Your task to perform on an android device: What's on Reddit today Image 0: 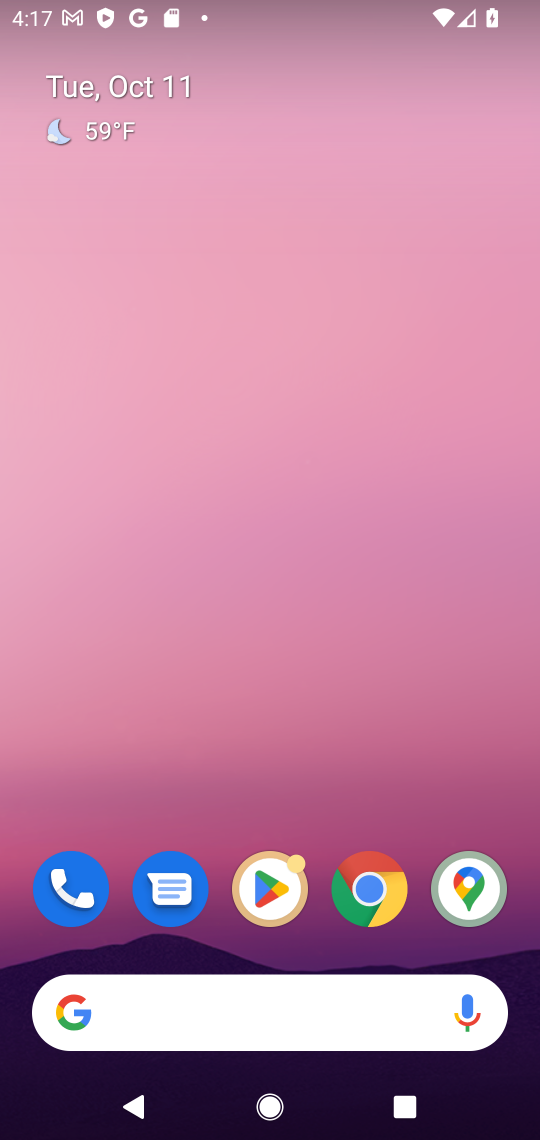
Step 0: drag from (281, 320) to (261, 48)
Your task to perform on an android device: What's on Reddit today Image 1: 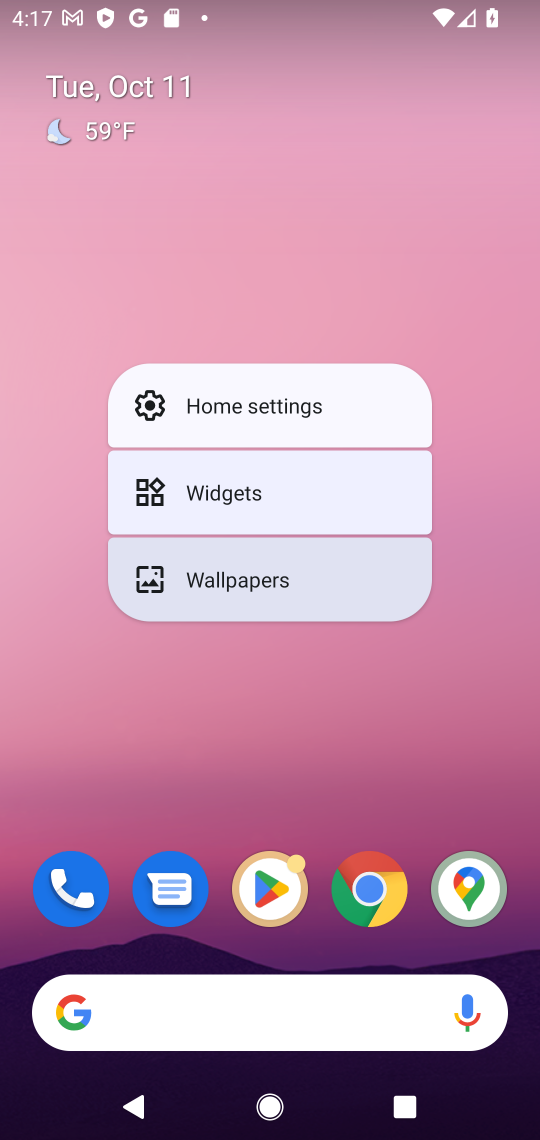
Step 1: click (209, 764)
Your task to perform on an android device: What's on Reddit today Image 2: 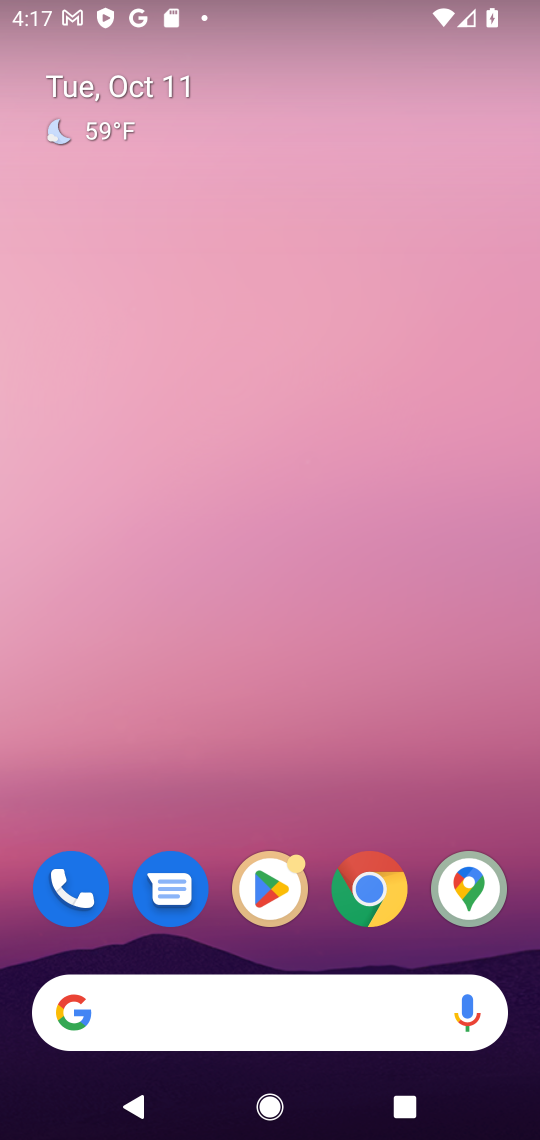
Step 2: drag from (235, 939) to (303, 212)
Your task to perform on an android device: What's on Reddit today Image 3: 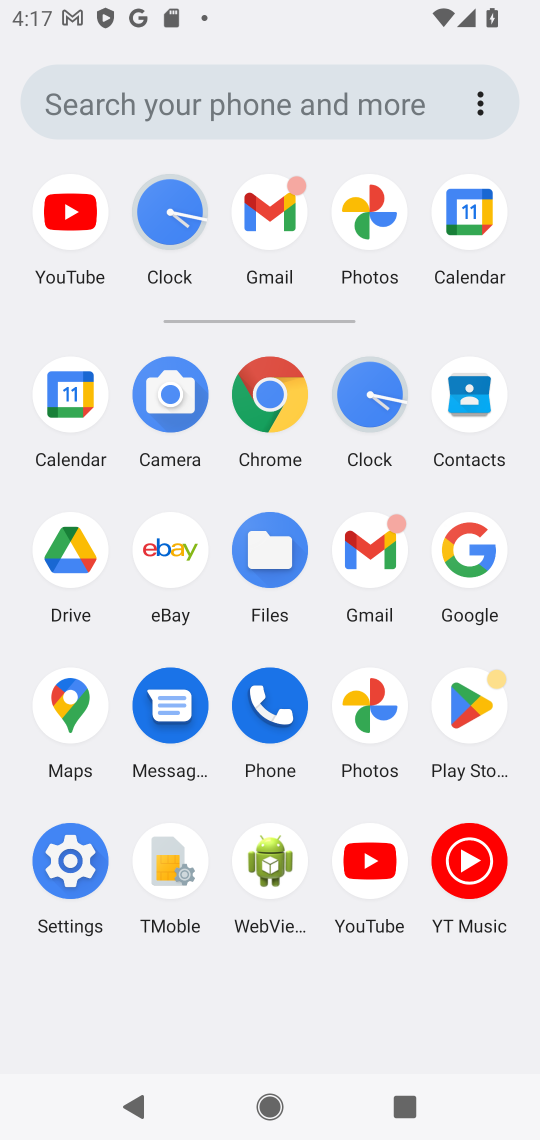
Step 3: click (485, 545)
Your task to perform on an android device: What's on Reddit today Image 4: 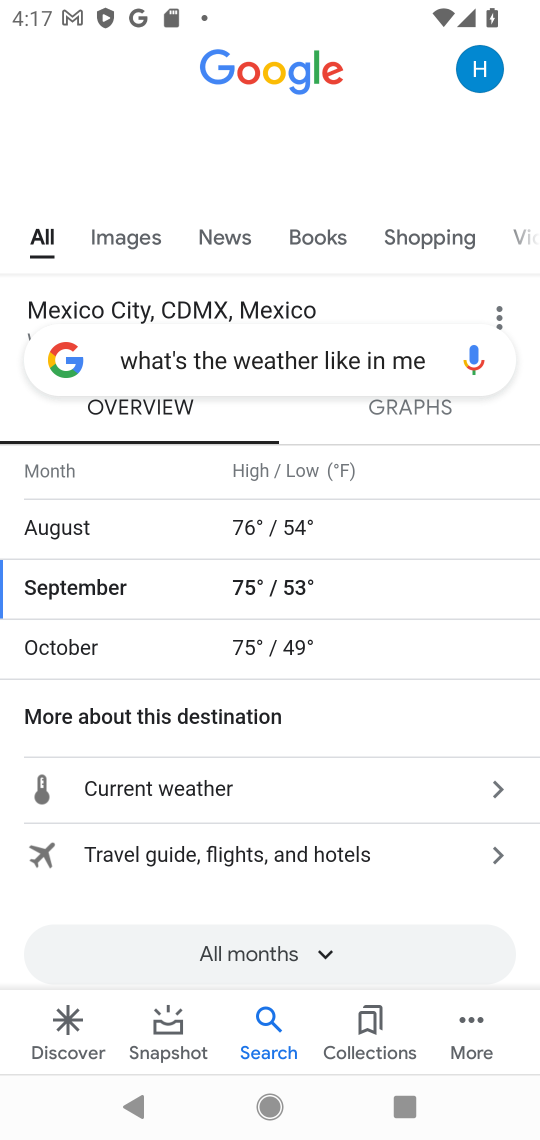
Step 4: click (214, 355)
Your task to perform on an android device: What's on Reddit today Image 5: 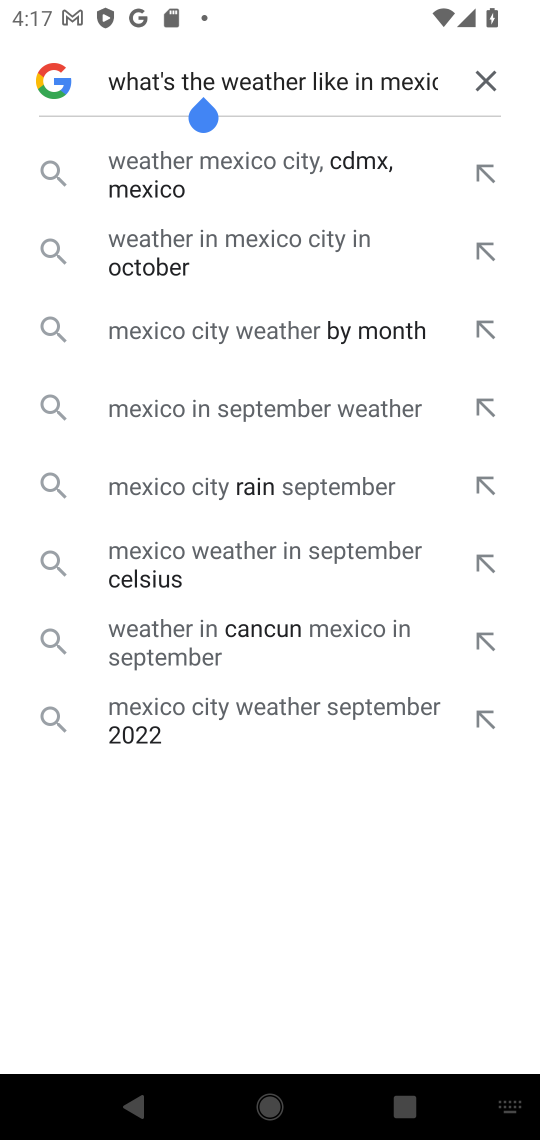
Step 5: click (495, 68)
Your task to perform on an android device: What's on Reddit today Image 6: 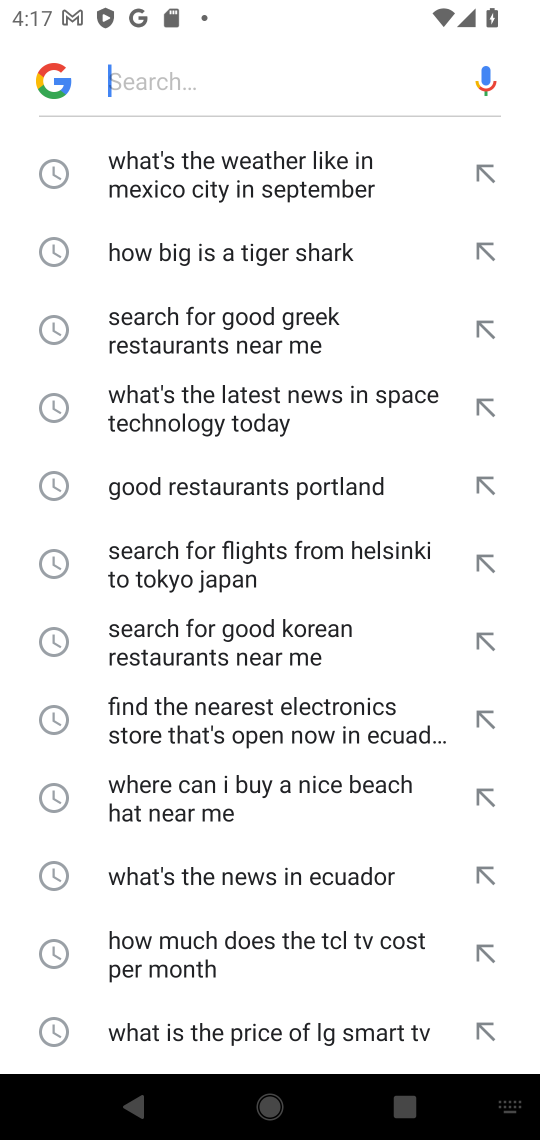
Step 6: click (246, 60)
Your task to perform on an android device: What's on Reddit today Image 7: 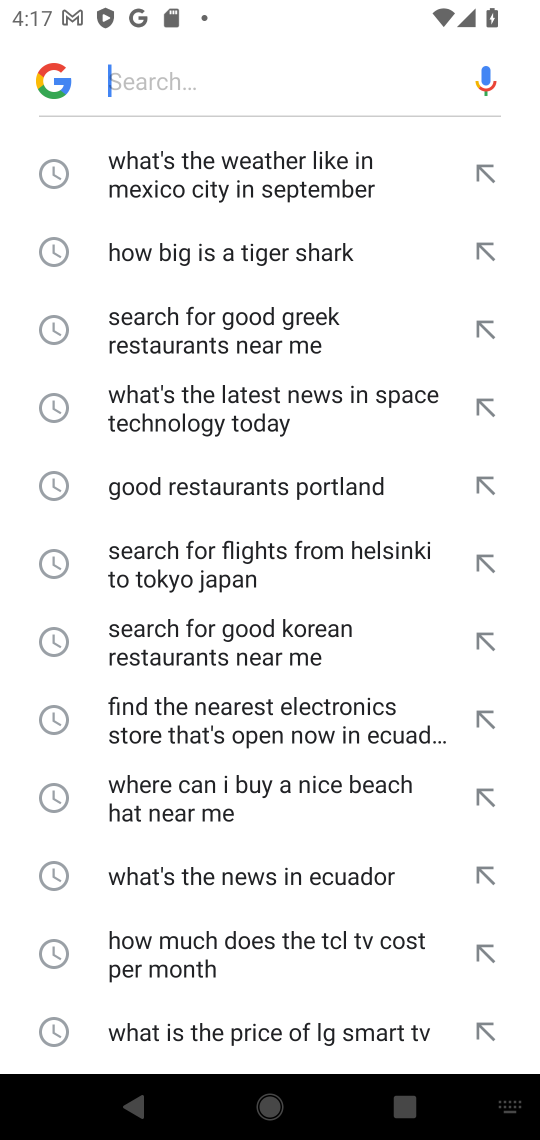
Step 7: type "What's on Reddit today "
Your task to perform on an android device: What's on Reddit today Image 8: 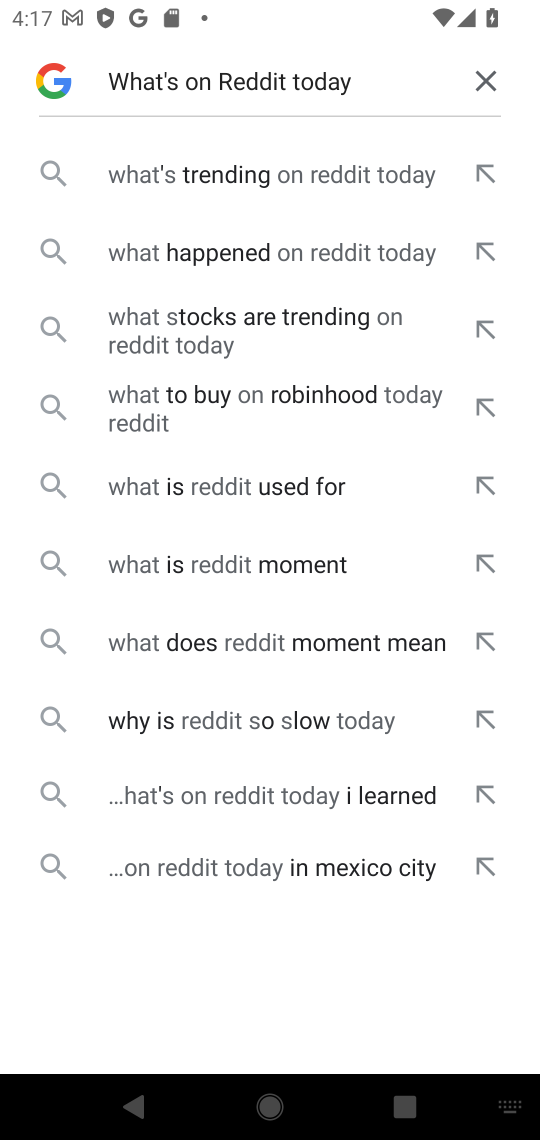
Step 8: click (250, 166)
Your task to perform on an android device: What's on Reddit today Image 9: 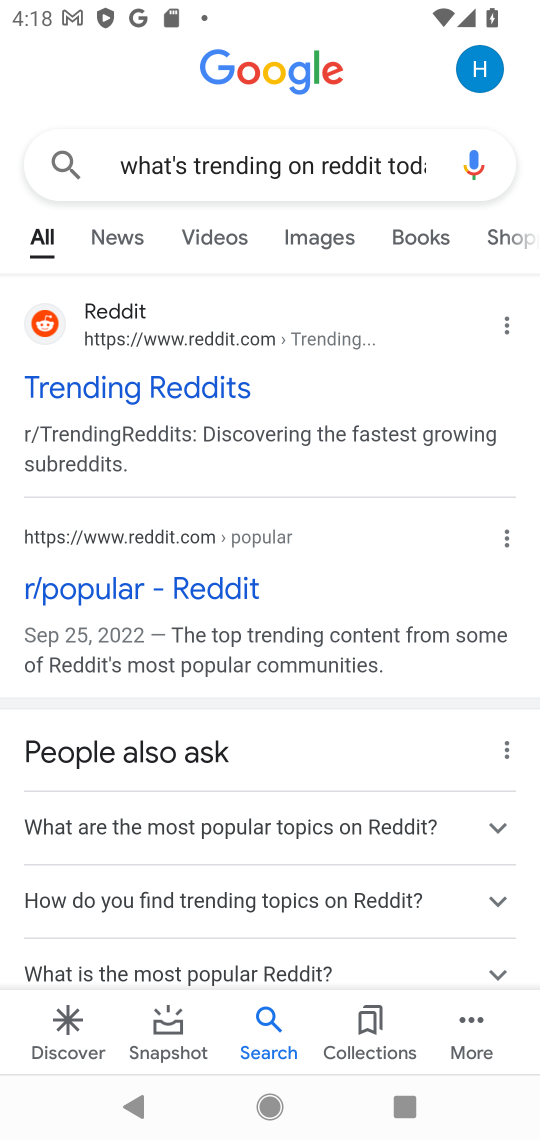
Step 9: click (130, 589)
Your task to perform on an android device: What's on Reddit today Image 10: 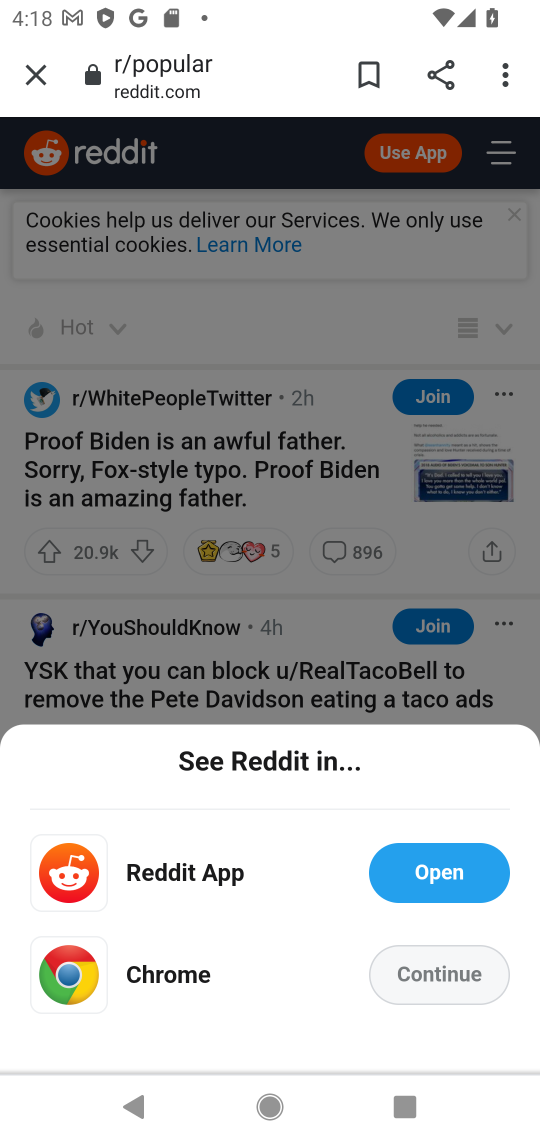
Step 10: click (436, 876)
Your task to perform on an android device: What's on Reddit today Image 11: 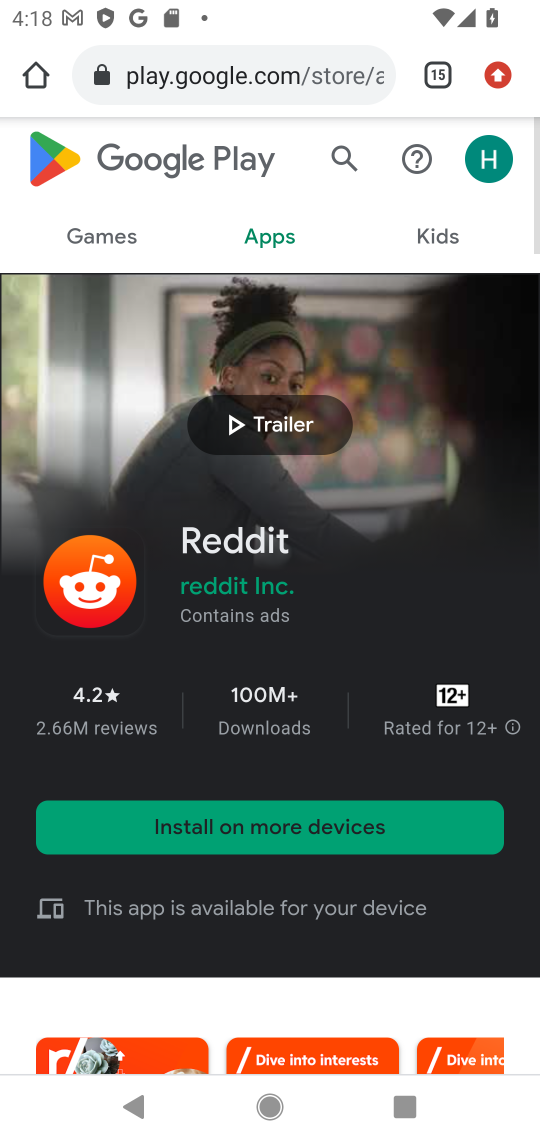
Step 11: task complete